Your task to perform on an android device: turn on wifi Image 0: 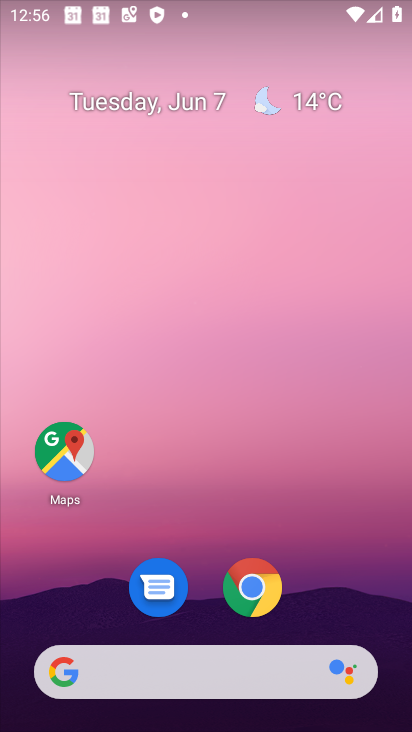
Step 0: drag from (286, 659) to (277, 189)
Your task to perform on an android device: turn on wifi Image 1: 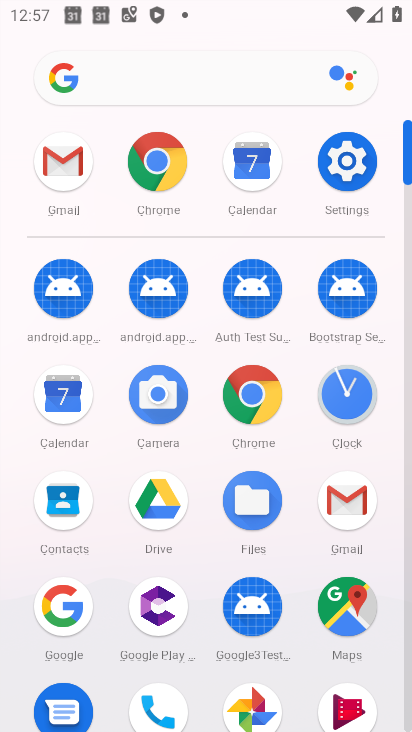
Step 1: click (359, 170)
Your task to perform on an android device: turn on wifi Image 2: 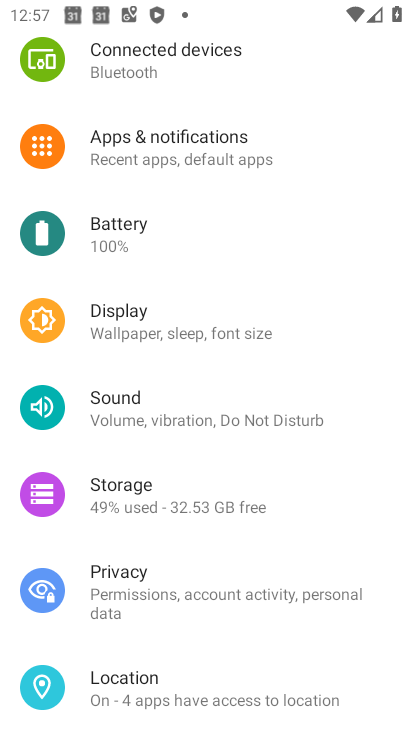
Step 2: drag from (193, 224) to (226, 725)
Your task to perform on an android device: turn on wifi Image 3: 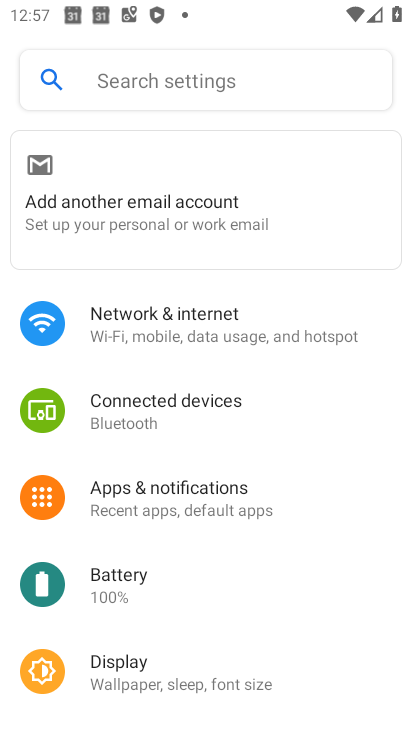
Step 3: click (216, 339)
Your task to perform on an android device: turn on wifi Image 4: 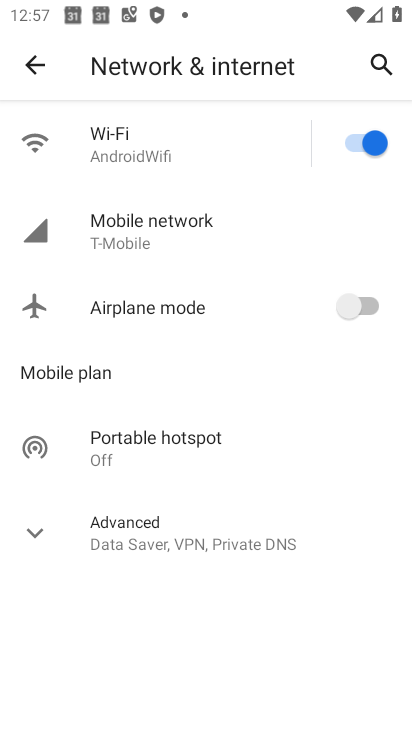
Step 4: task complete